Your task to perform on an android device: add a label to a message in the gmail app Image 0: 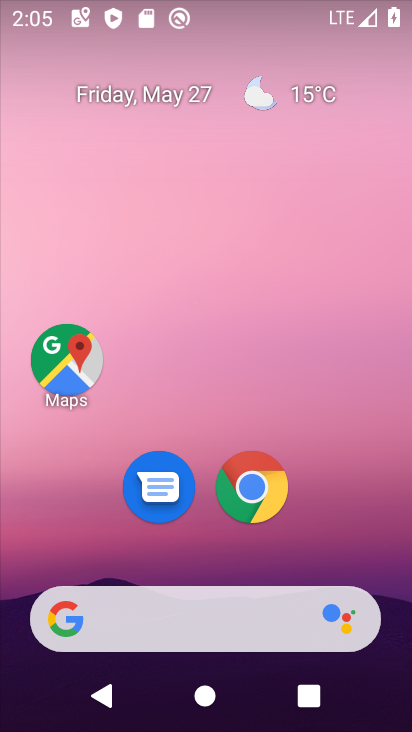
Step 0: drag from (358, 460) to (337, 150)
Your task to perform on an android device: add a label to a message in the gmail app Image 1: 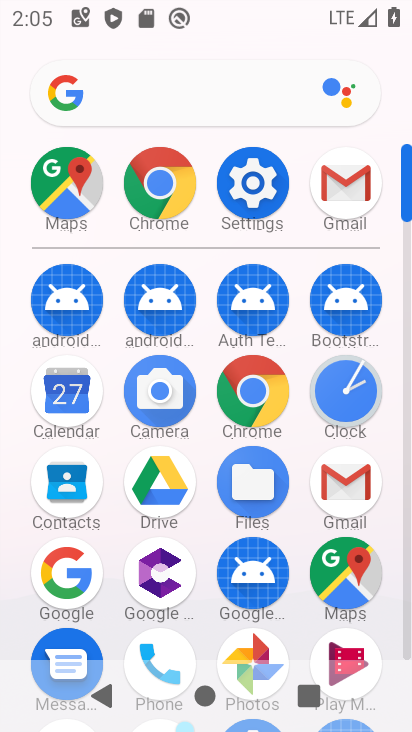
Step 1: click (329, 183)
Your task to perform on an android device: add a label to a message in the gmail app Image 2: 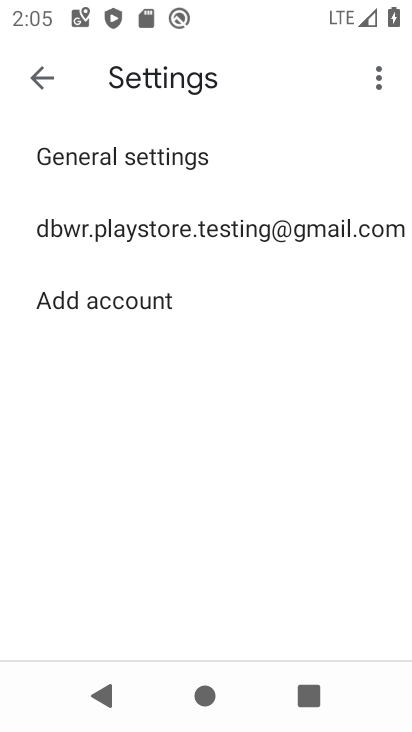
Step 2: click (173, 225)
Your task to perform on an android device: add a label to a message in the gmail app Image 3: 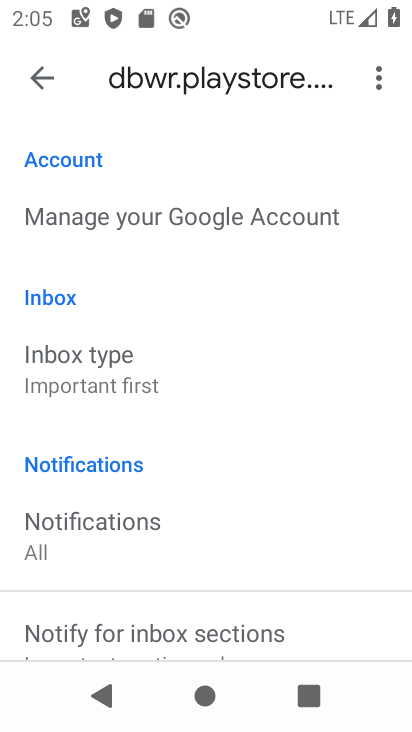
Step 3: click (34, 70)
Your task to perform on an android device: add a label to a message in the gmail app Image 4: 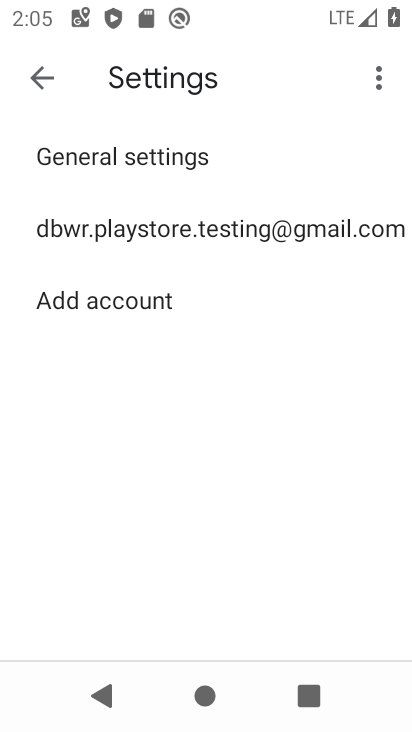
Step 4: click (33, 69)
Your task to perform on an android device: add a label to a message in the gmail app Image 5: 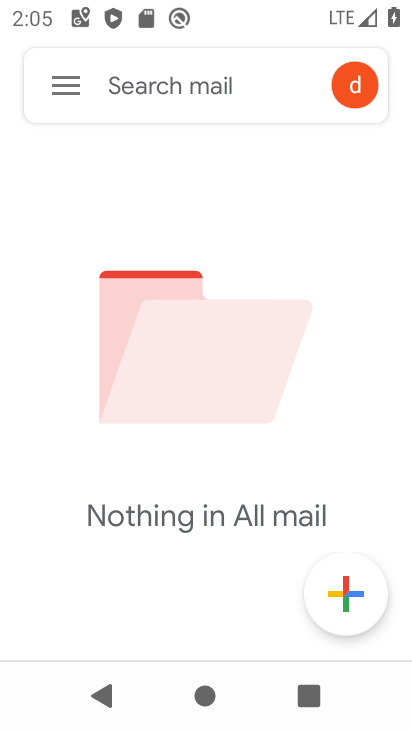
Step 5: click (50, 71)
Your task to perform on an android device: add a label to a message in the gmail app Image 6: 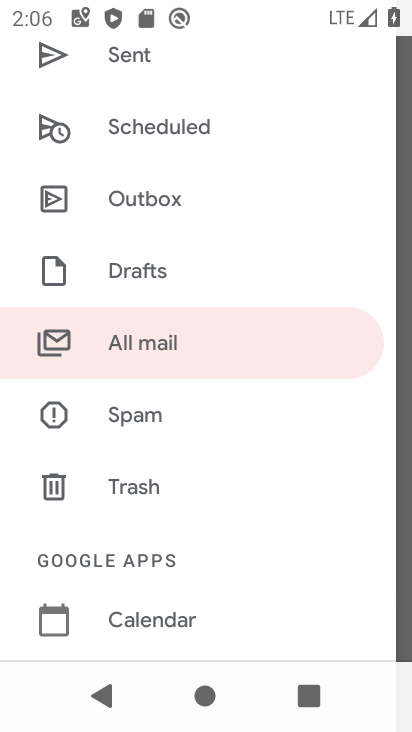
Step 6: click (125, 351)
Your task to perform on an android device: add a label to a message in the gmail app Image 7: 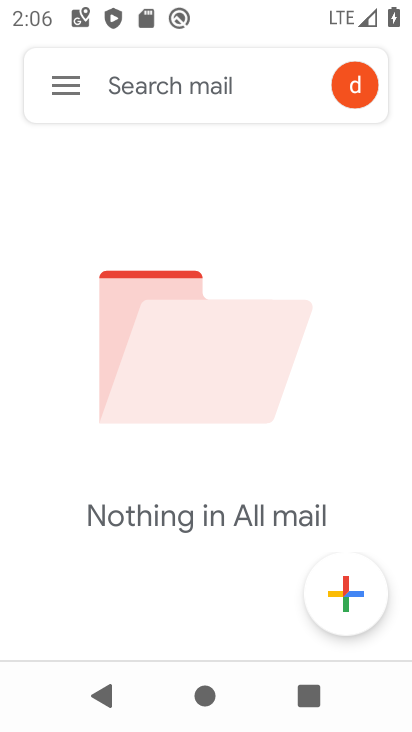
Step 7: task complete